Your task to perform on an android device: clear all cookies in the chrome app Image 0: 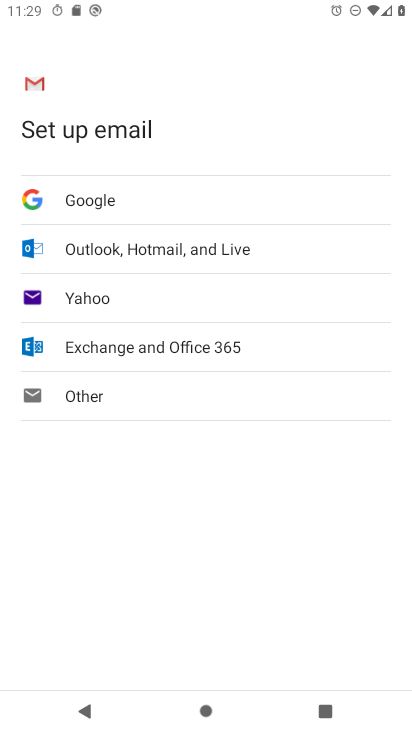
Step 0: press back button
Your task to perform on an android device: clear all cookies in the chrome app Image 1: 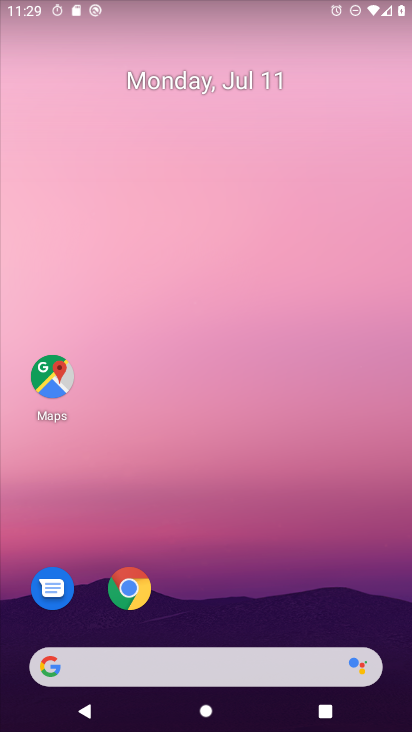
Step 1: click (122, 595)
Your task to perform on an android device: clear all cookies in the chrome app Image 2: 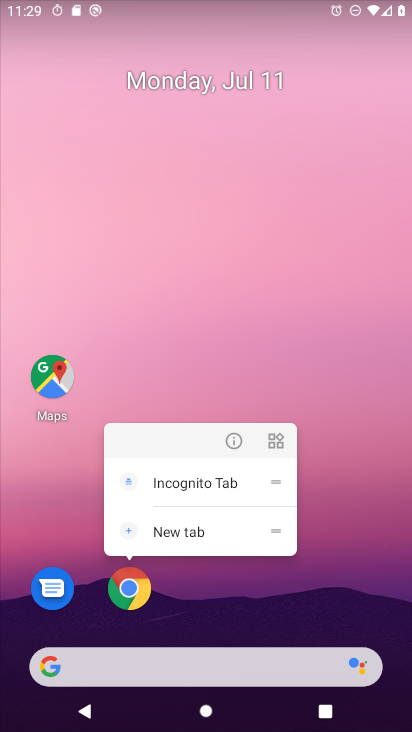
Step 2: click (125, 575)
Your task to perform on an android device: clear all cookies in the chrome app Image 3: 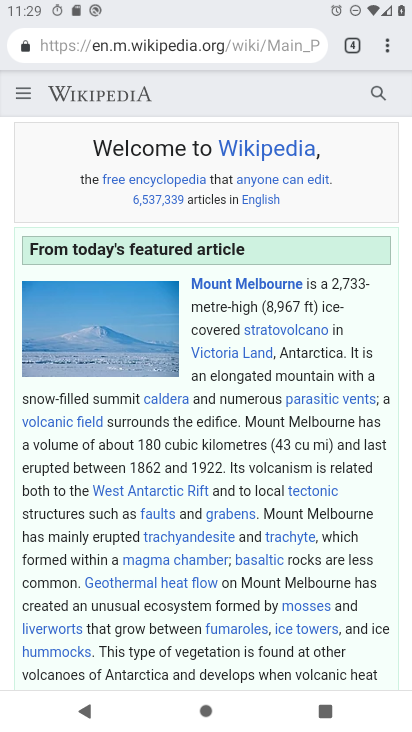
Step 3: drag from (389, 40) to (257, 554)
Your task to perform on an android device: clear all cookies in the chrome app Image 4: 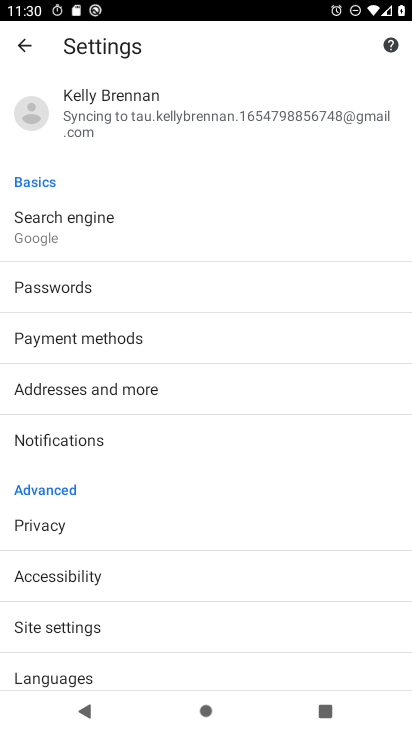
Step 4: click (26, 44)
Your task to perform on an android device: clear all cookies in the chrome app Image 5: 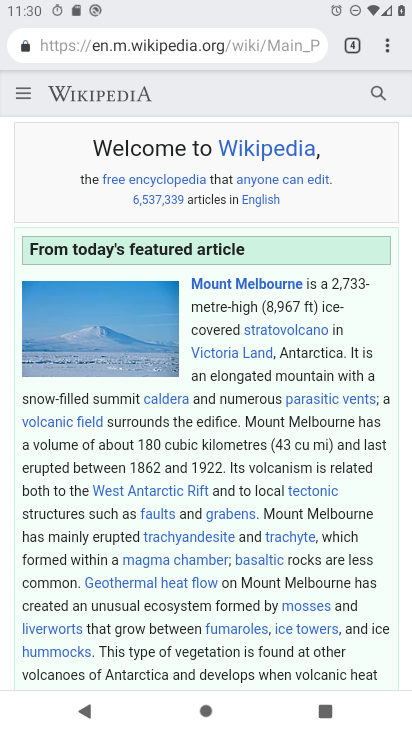
Step 5: drag from (392, 45) to (237, 253)
Your task to perform on an android device: clear all cookies in the chrome app Image 6: 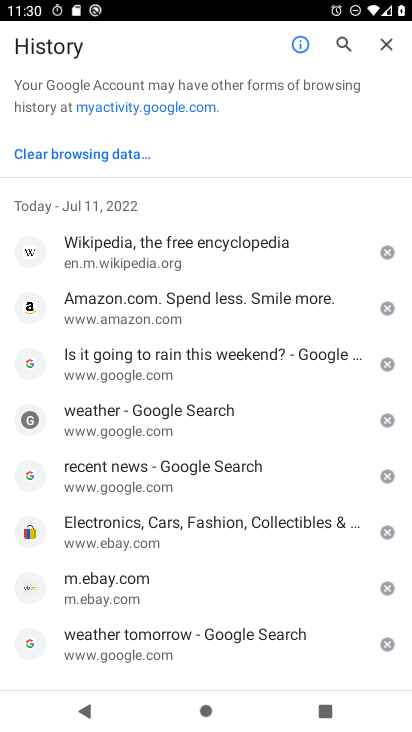
Step 6: click (78, 157)
Your task to perform on an android device: clear all cookies in the chrome app Image 7: 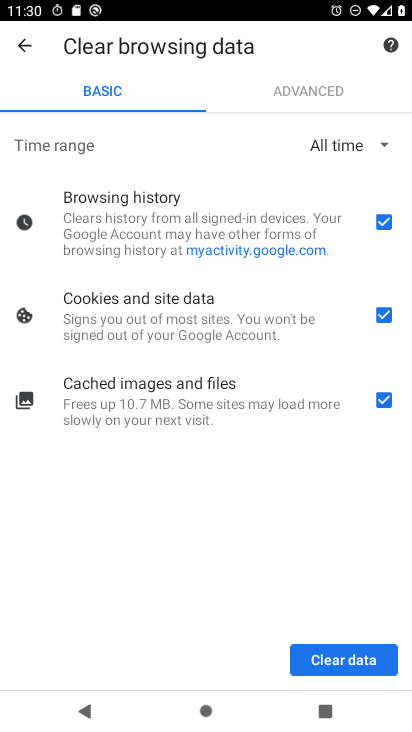
Step 7: click (383, 208)
Your task to perform on an android device: clear all cookies in the chrome app Image 8: 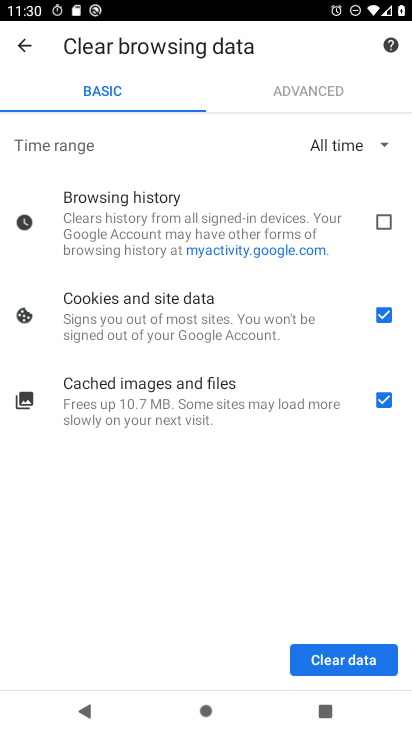
Step 8: click (387, 409)
Your task to perform on an android device: clear all cookies in the chrome app Image 9: 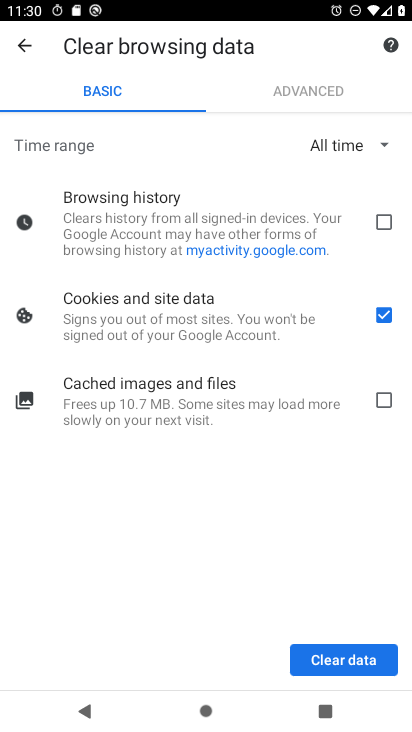
Step 9: click (337, 662)
Your task to perform on an android device: clear all cookies in the chrome app Image 10: 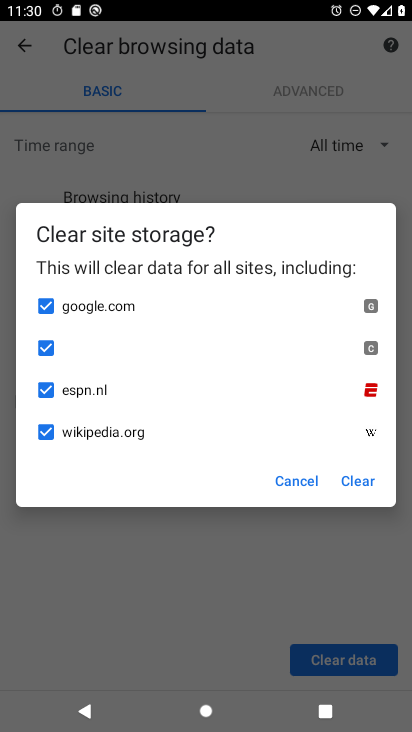
Step 10: click (353, 468)
Your task to perform on an android device: clear all cookies in the chrome app Image 11: 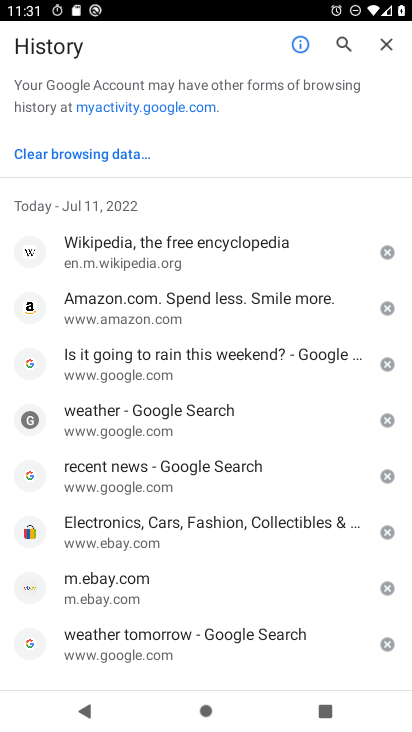
Step 11: task complete